Your task to perform on an android device: Open calendar and show me the first week of next month Image 0: 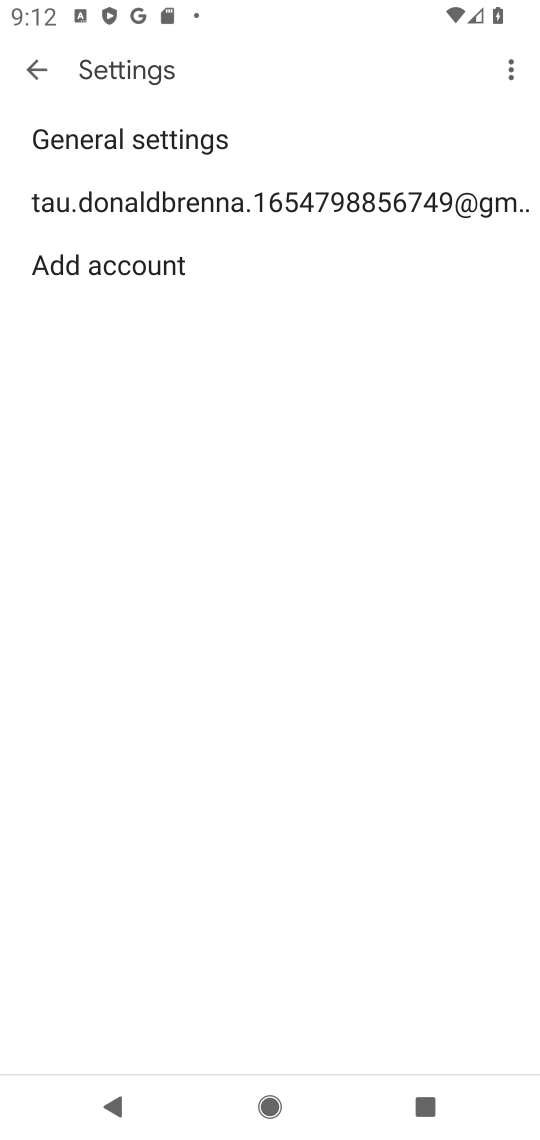
Step 0: press home button
Your task to perform on an android device: Open calendar and show me the first week of next month Image 1: 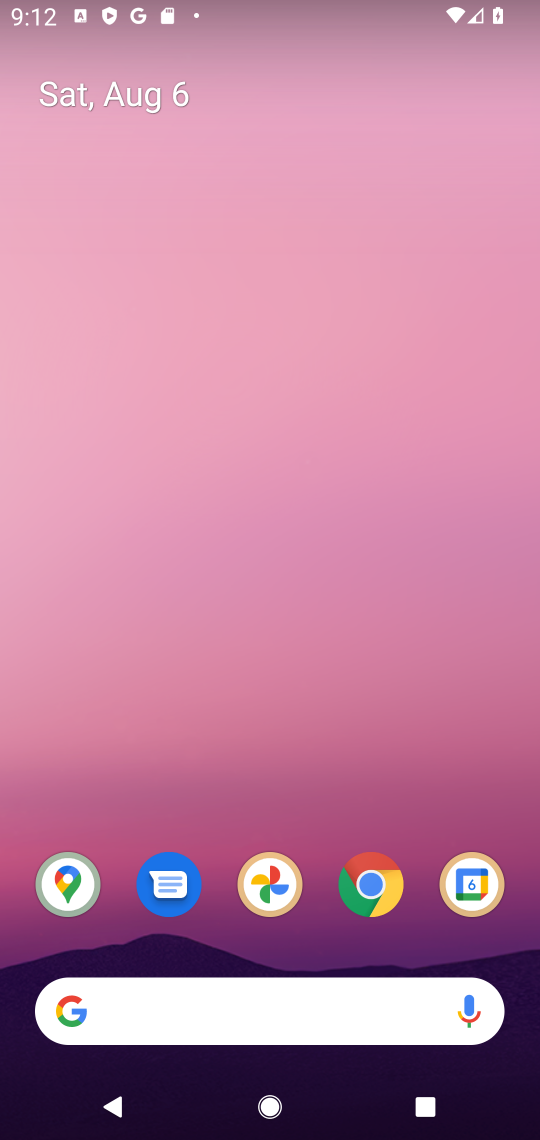
Step 1: click (473, 887)
Your task to perform on an android device: Open calendar and show me the first week of next month Image 2: 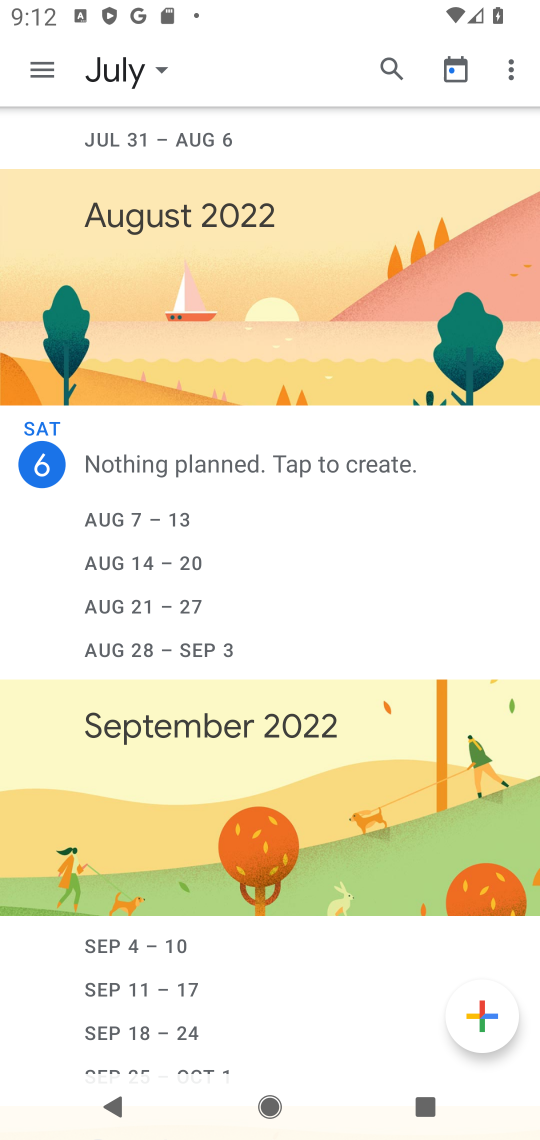
Step 2: click (46, 69)
Your task to perform on an android device: Open calendar and show me the first week of next month Image 3: 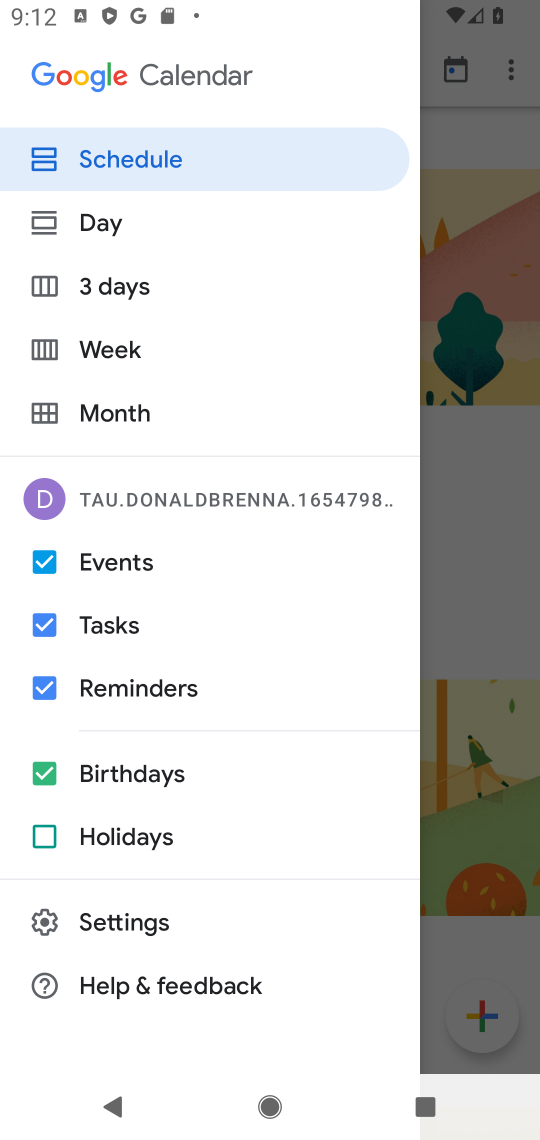
Step 3: click (132, 351)
Your task to perform on an android device: Open calendar and show me the first week of next month Image 4: 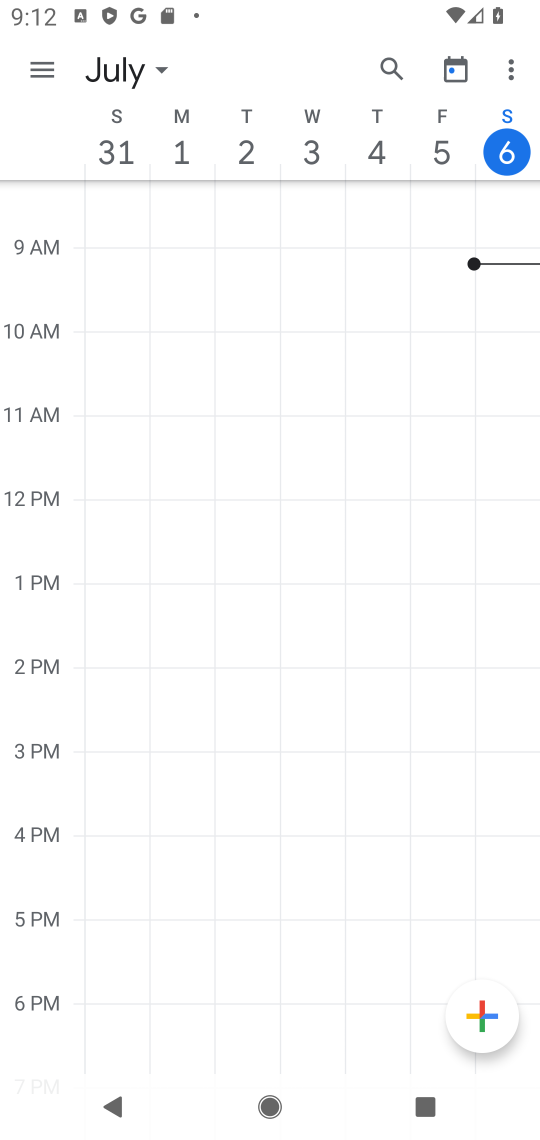
Step 4: click (160, 73)
Your task to perform on an android device: Open calendar and show me the first week of next month Image 5: 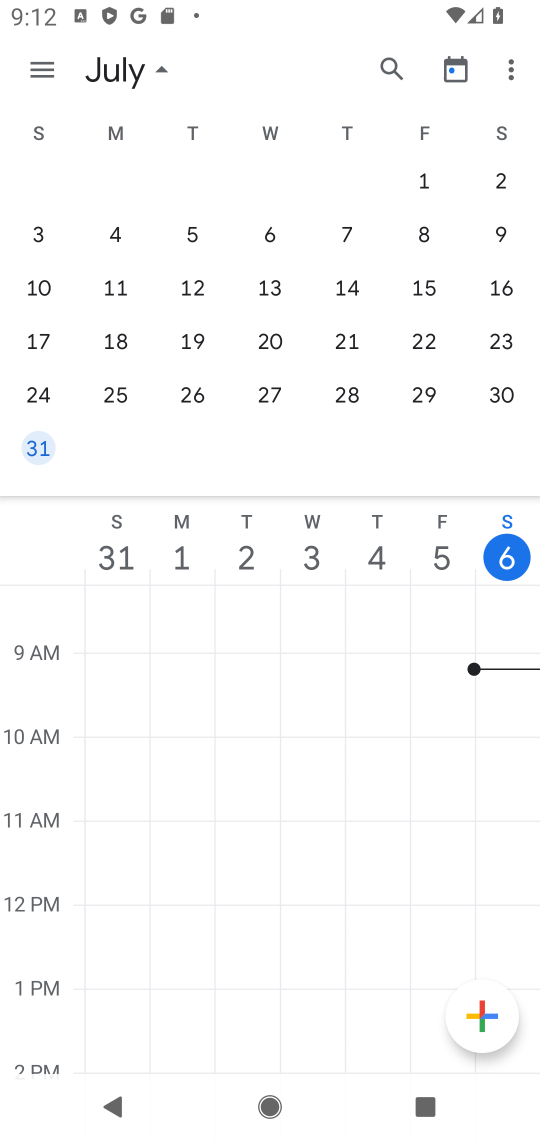
Step 5: drag from (497, 331) to (16, 306)
Your task to perform on an android device: Open calendar and show me the first week of next month Image 6: 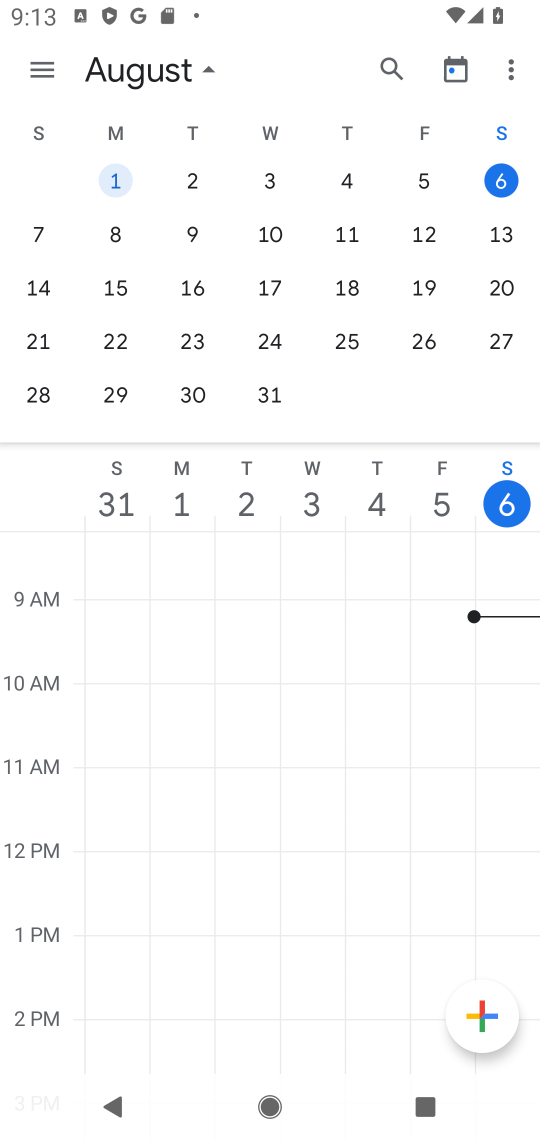
Step 6: drag from (505, 304) to (3, 253)
Your task to perform on an android device: Open calendar and show me the first week of next month Image 7: 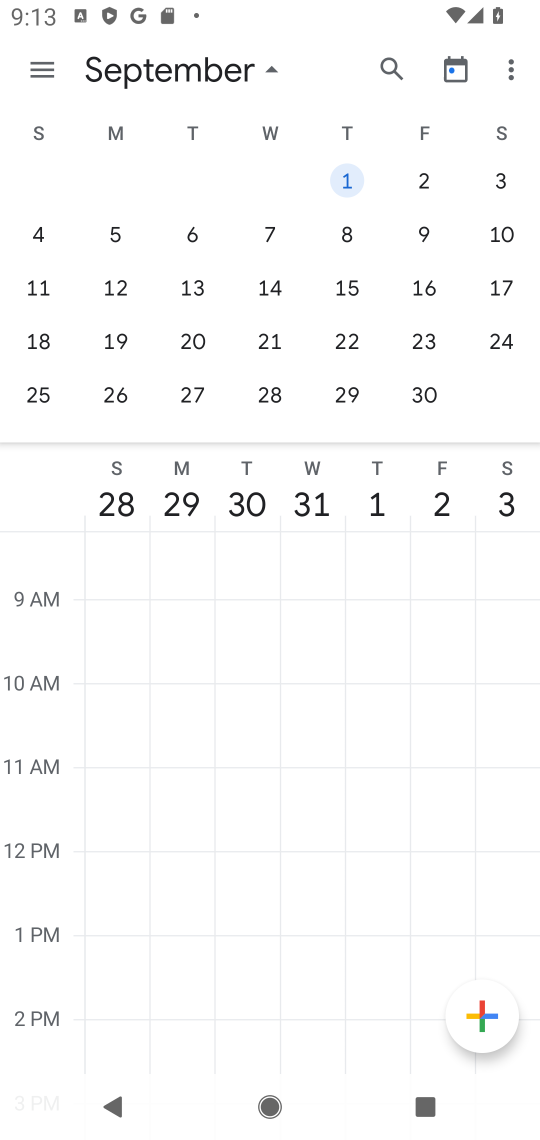
Step 7: click (33, 240)
Your task to perform on an android device: Open calendar and show me the first week of next month Image 8: 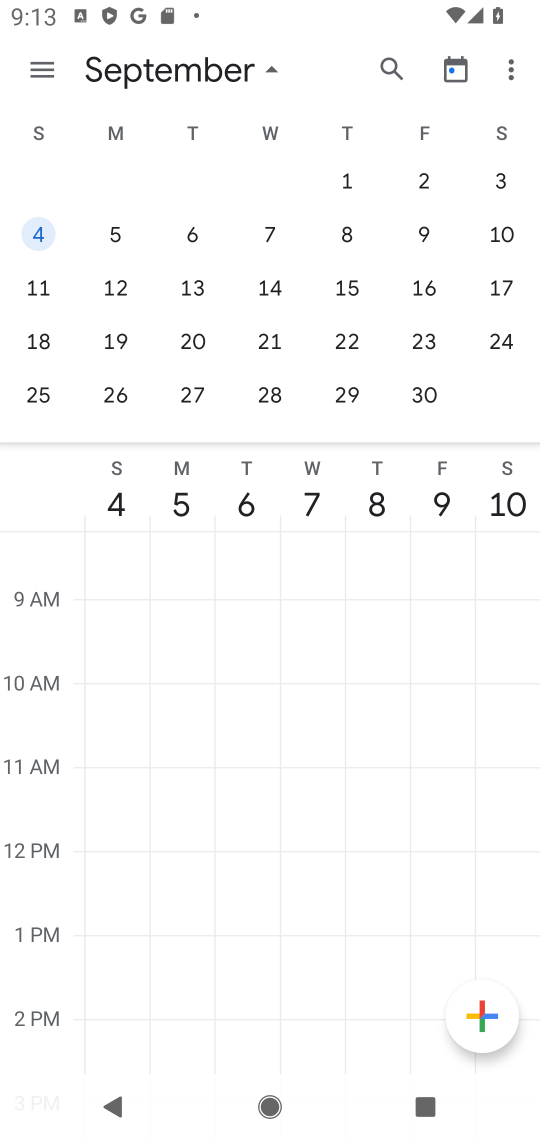
Step 8: task complete